Your task to perform on an android device: change the clock style Image 0: 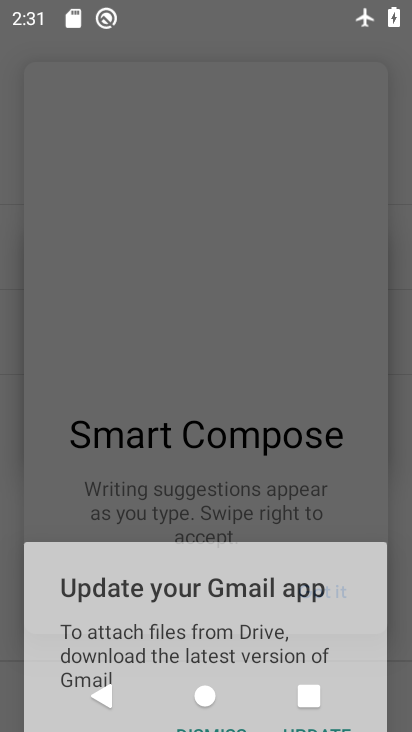
Step 0: press home button
Your task to perform on an android device: change the clock style Image 1: 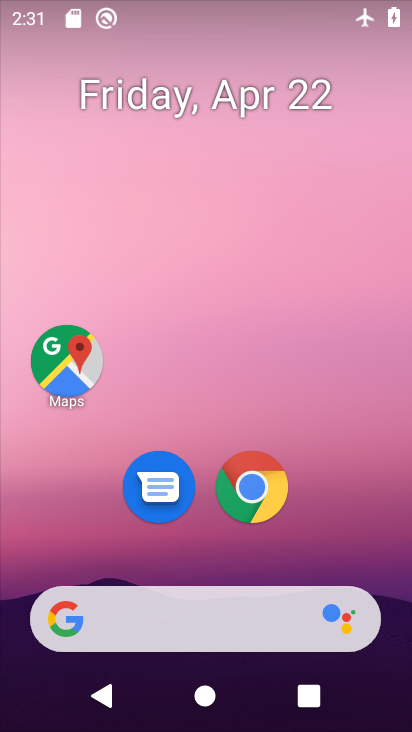
Step 1: drag from (256, 557) to (248, 257)
Your task to perform on an android device: change the clock style Image 2: 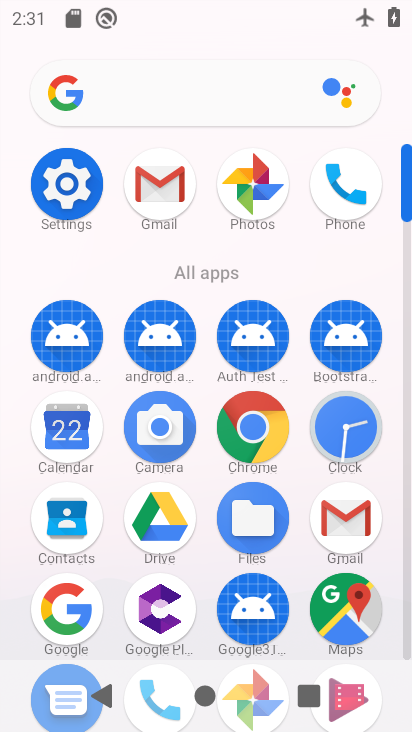
Step 2: click (344, 441)
Your task to perform on an android device: change the clock style Image 3: 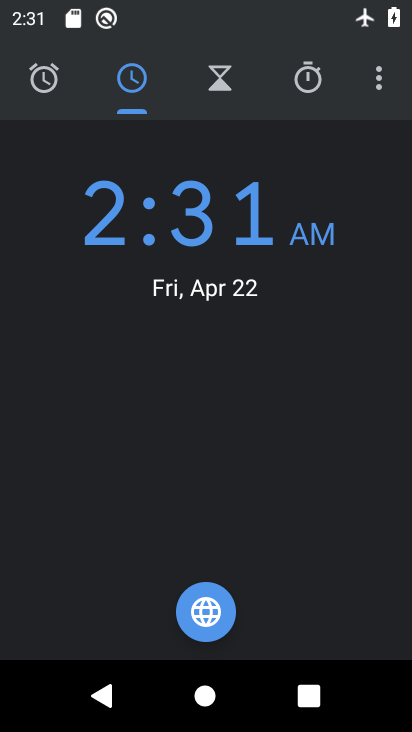
Step 3: click (379, 86)
Your task to perform on an android device: change the clock style Image 4: 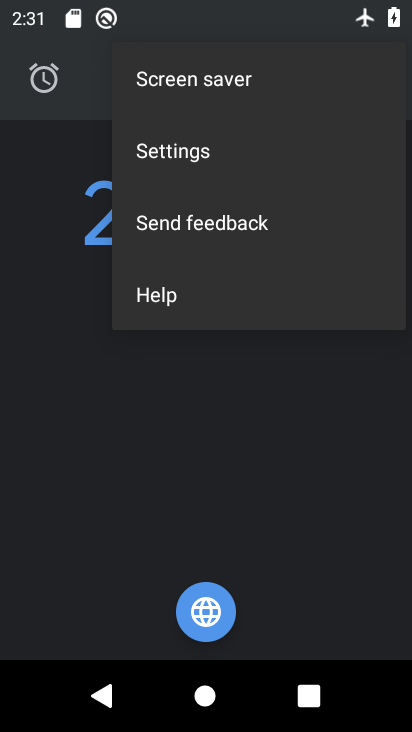
Step 4: click (214, 165)
Your task to perform on an android device: change the clock style Image 5: 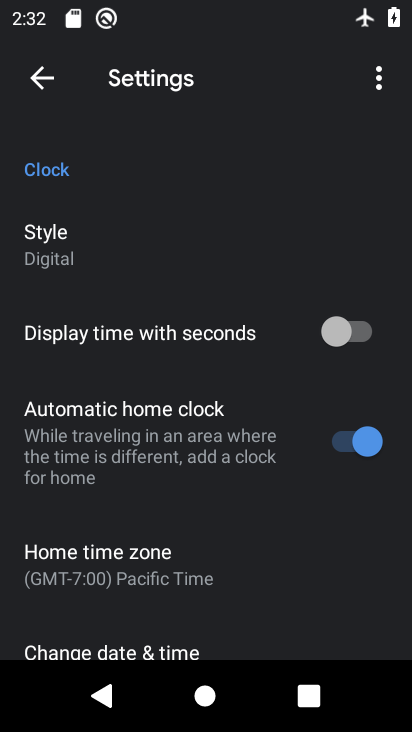
Step 5: click (147, 267)
Your task to perform on an android device: change the clock style Image 6: 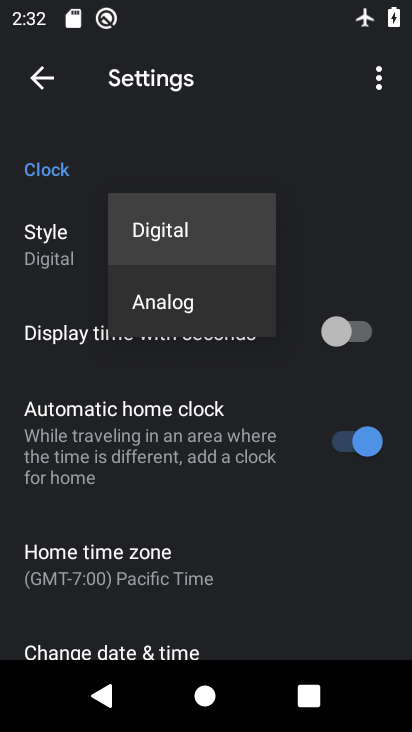
Step 6: click (161, 310)
Your task to perform on an android device: change the clock style Image 7: 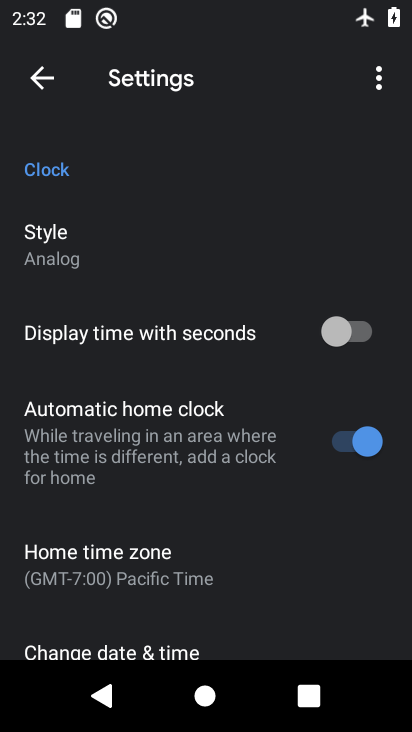
Step 7: task complete